Your task to perform on an android device: Go to Google Image 0: 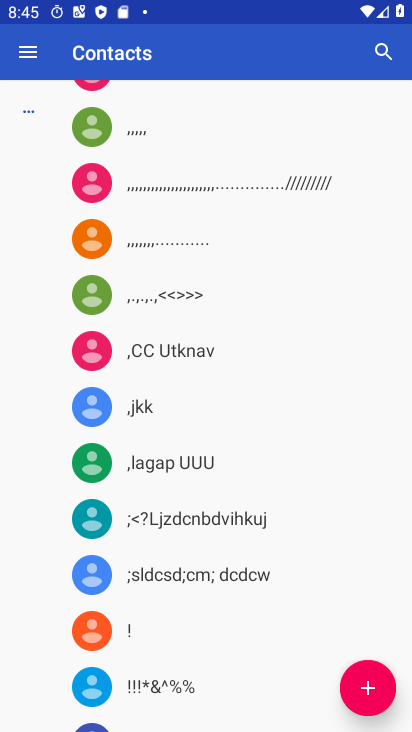
Step 0: press home button
Your task to perform on an android device: Go to Google Image 1: 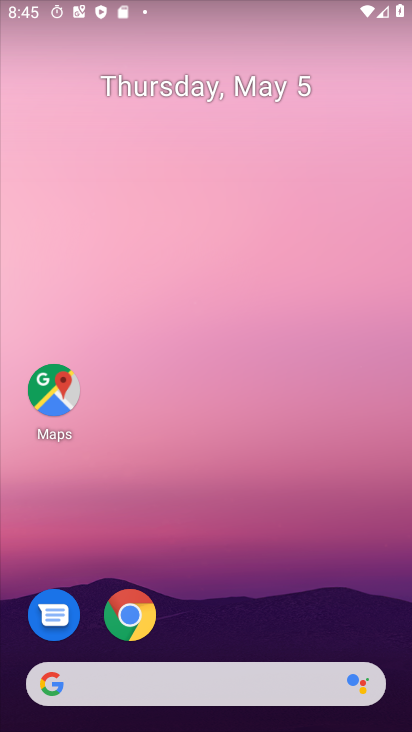
Step 1: click (177, 693)
Your task to perform on an android device: Go to Google Image 2: 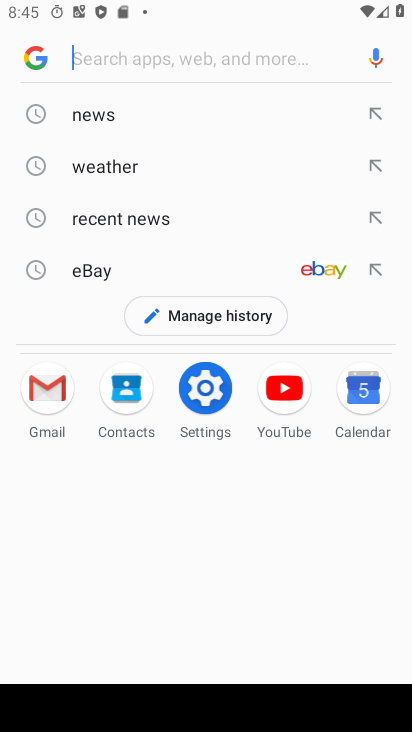
Step 2: click (32, 67)
Your task to perform on an android device: Go to Google Image 3: 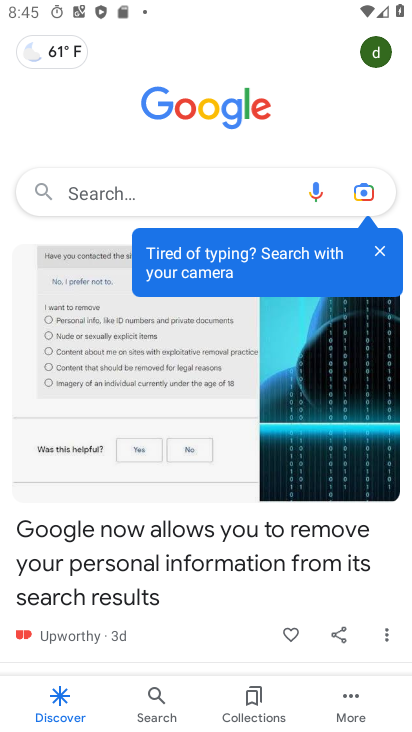
Step 3: task complete